Your task to perform on an android device: visit the assistant section in the google photos Image 0: 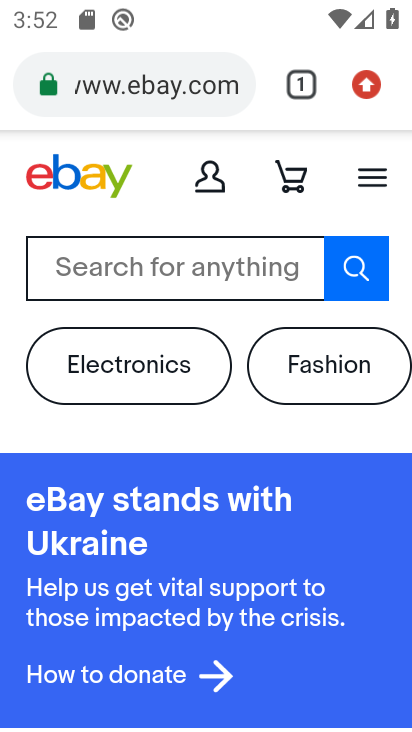
Step 0: press home button
Your task to perform on an android device: visit the assistant section in the google photos Image 1: 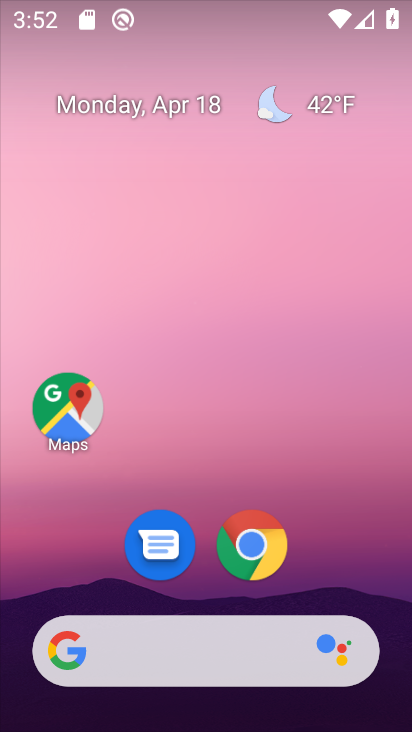
Step 1: drag from (318, 558) to (301, 98)
Your task to perform on an android device: visit the assistant section in the google photos Image 2: 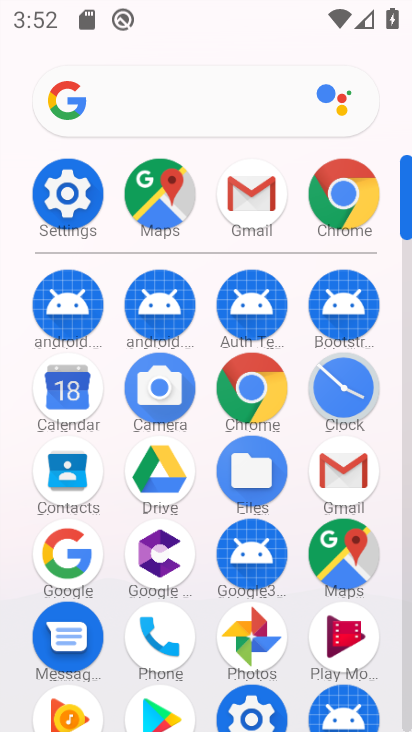
Step 2: drag from (204, 598) to (214, 236)
Your task to perform on an android device: visit the assistant section in the google photos Image 3: 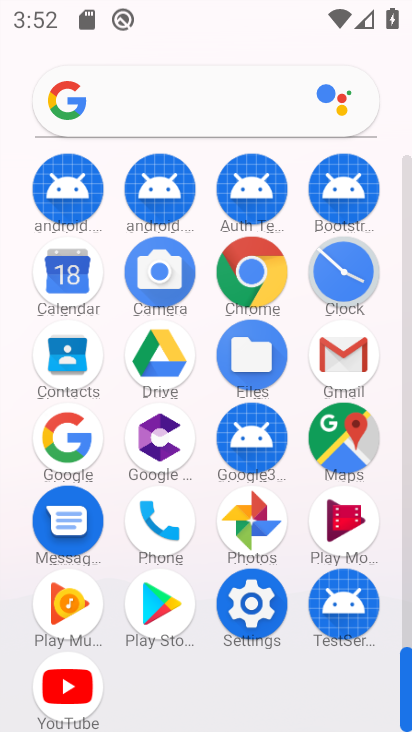
Step 3: click (249, 530)
Your task to perform on an android device: visit the assistant section in the google photos Image 4: 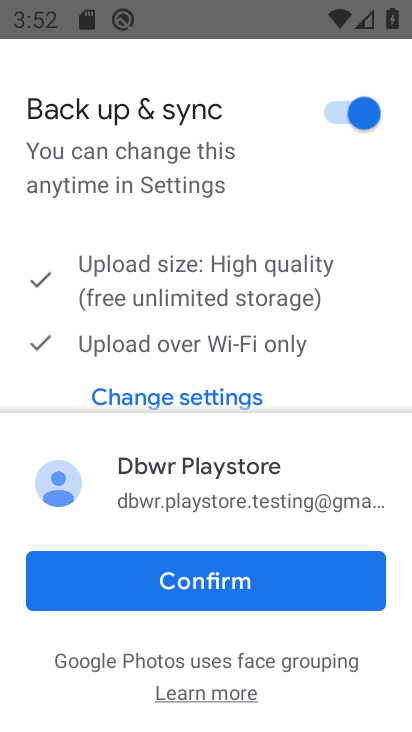
Step 4: click (237, 572)
Your task to perform on an android device: visit the assistant section in the google photos Image 5: 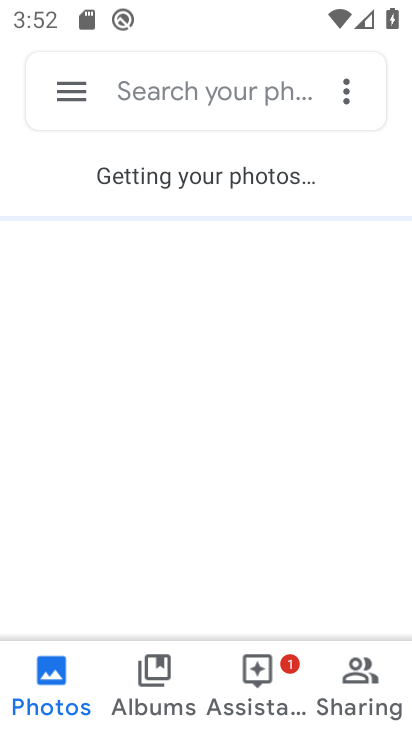
Step 5: click (263, 681)
Your task to perform on an android device: visit the assistant section in the google photos Image 6: 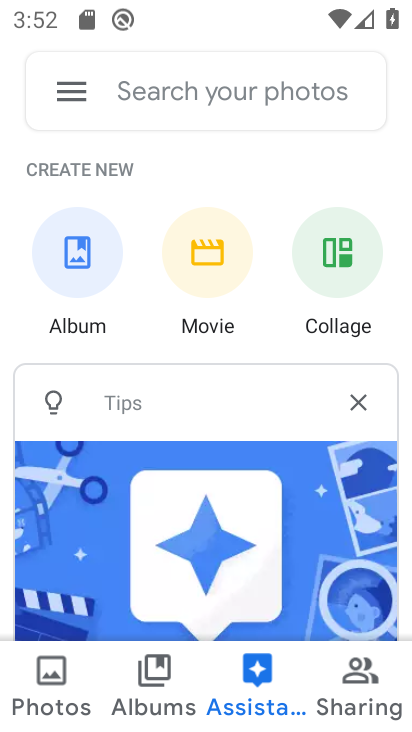
Step 6: task complete